Your task to perform on an android device: turn off airplane mode Image 0: 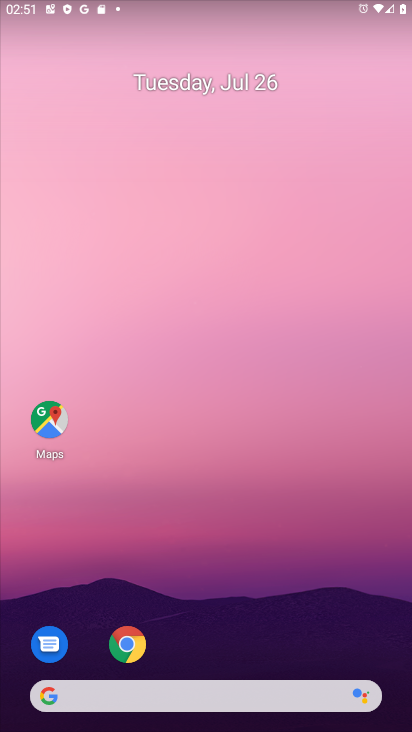
Step 0: drag from (226, 684) to (167, 95)
Your task to perform on an android device: turn off airplane mode Image 1: 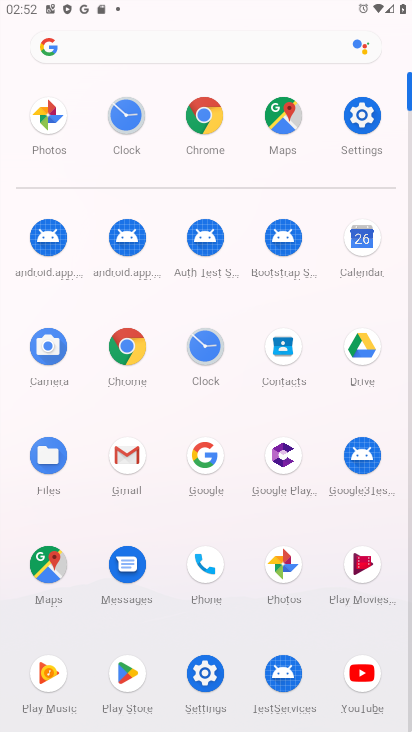
Step 1: click (197, 691)
Your task to perform on an android device: turn off airplane mode Image 2: 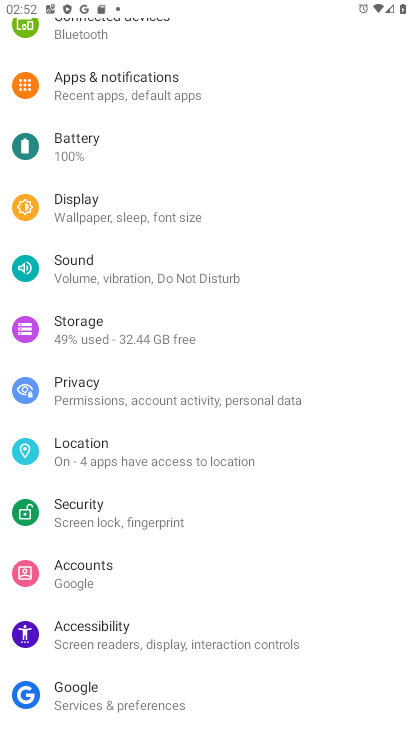
Step 2: drag from (136, 146) to (148, 563)
Your task to perform on an android device: turn off airplane mode Image 3: 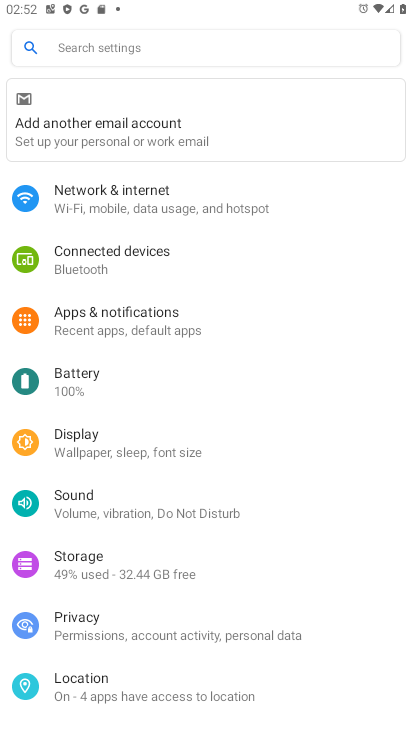
Step 3: click (134, 208)
Your task to perform on an android device: turn off airplane mode Image 4: 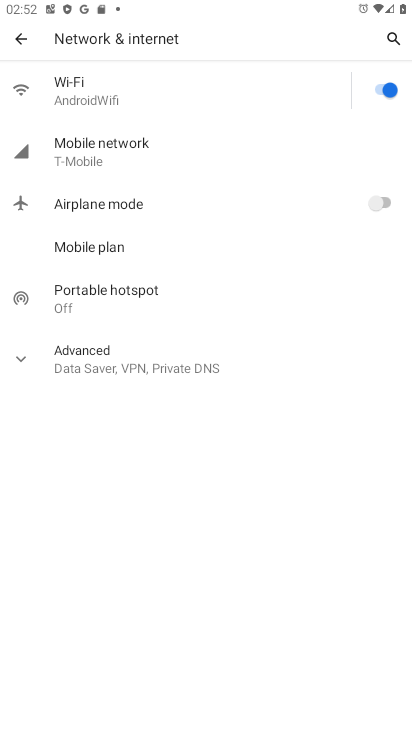
Step 4: task complete